Your task to perform on an android device: install app "Facebook" Image 0: 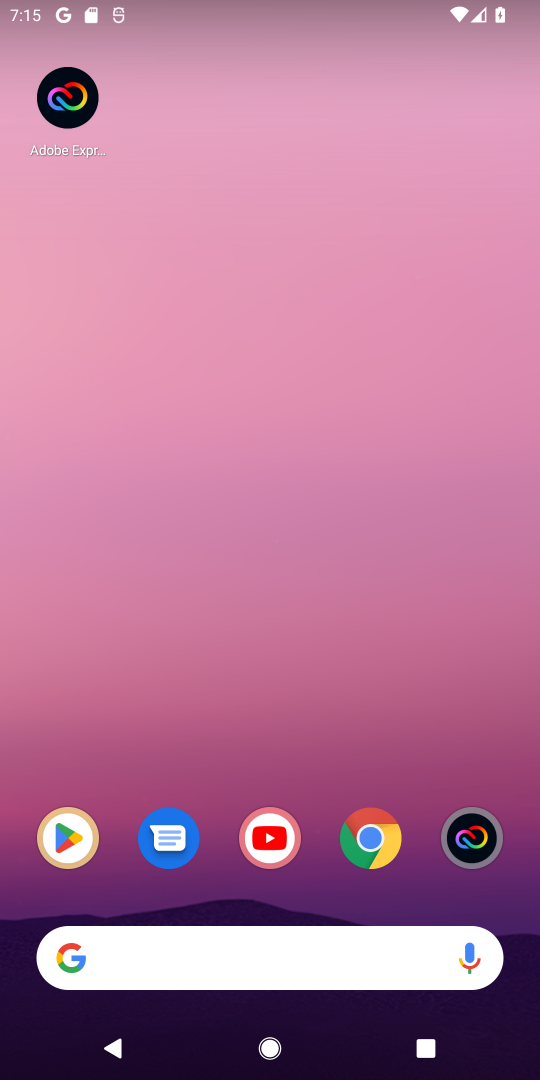
Step 0: click (278, 913)
Your task to perform on an android device: install app "Facebook" Image 1: 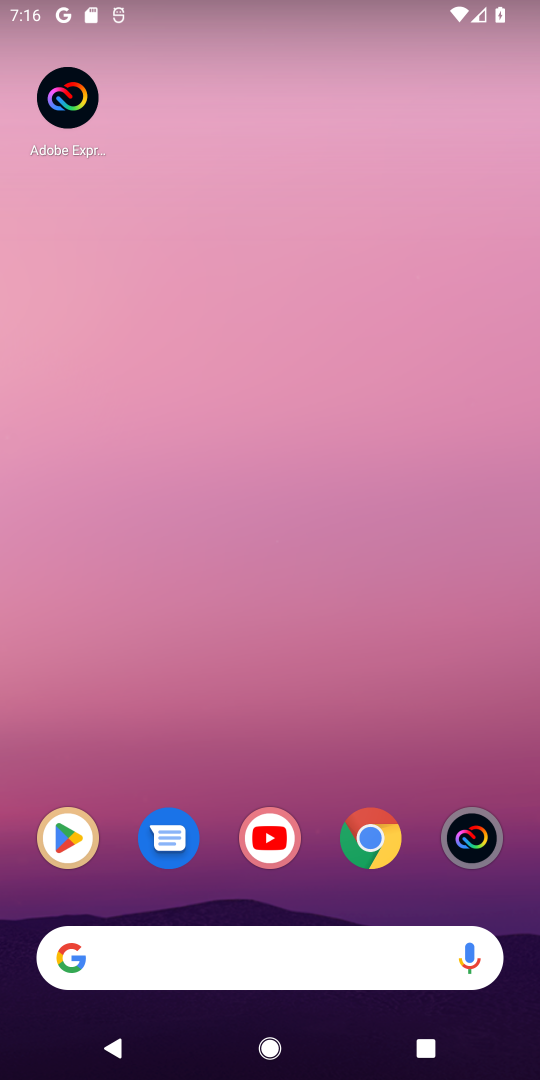
Step 1: drag from (302, 893) to (251, 19)
Your task to perform on an android device: install app "Facebook" Image 2: 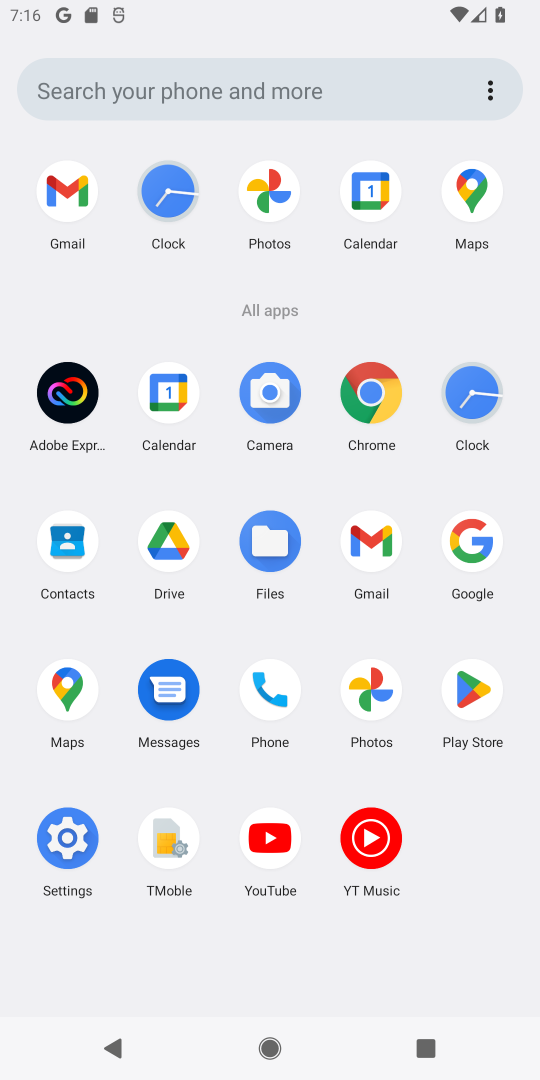
Step 2: click (479, 703)
Your task to perform on an android device: install app "Facebook" Image 3: 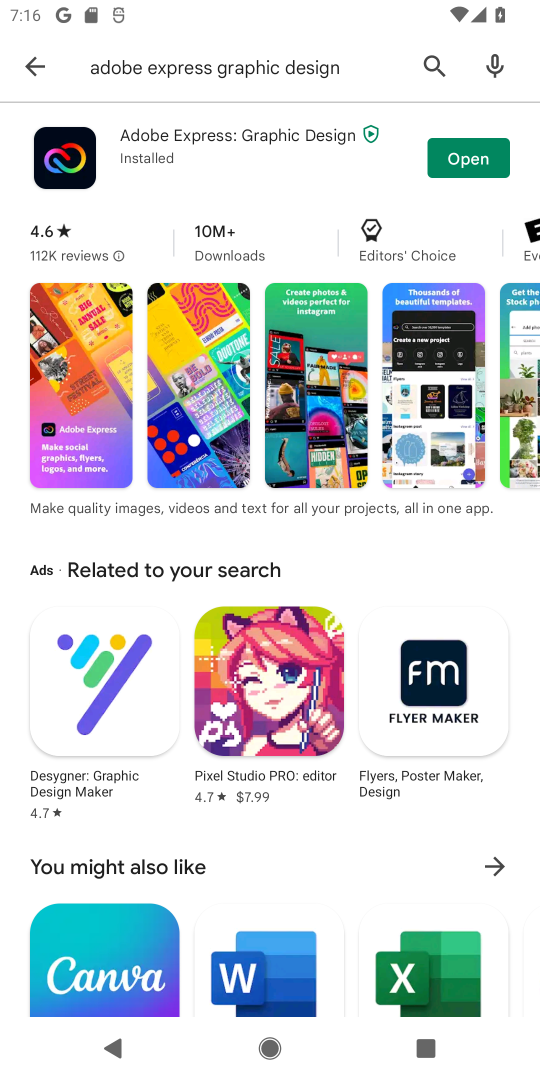
Step 3: click (31, 64)
Your task to perform on an android device: install app "Facebook" Image 4: 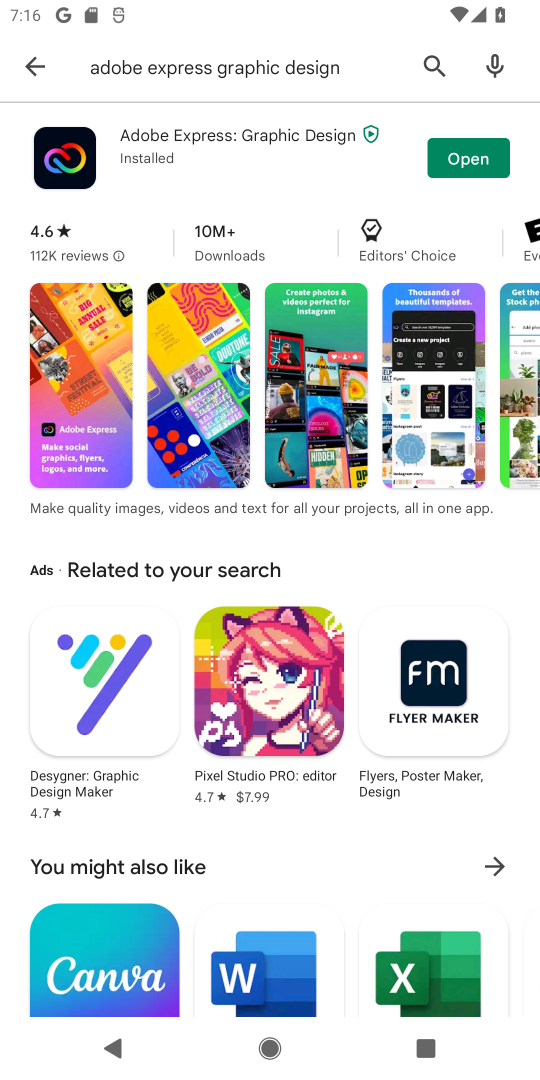
Step 4: click (430, 63)
Your task to perform on an android device: install app "Facebook" Image 5: 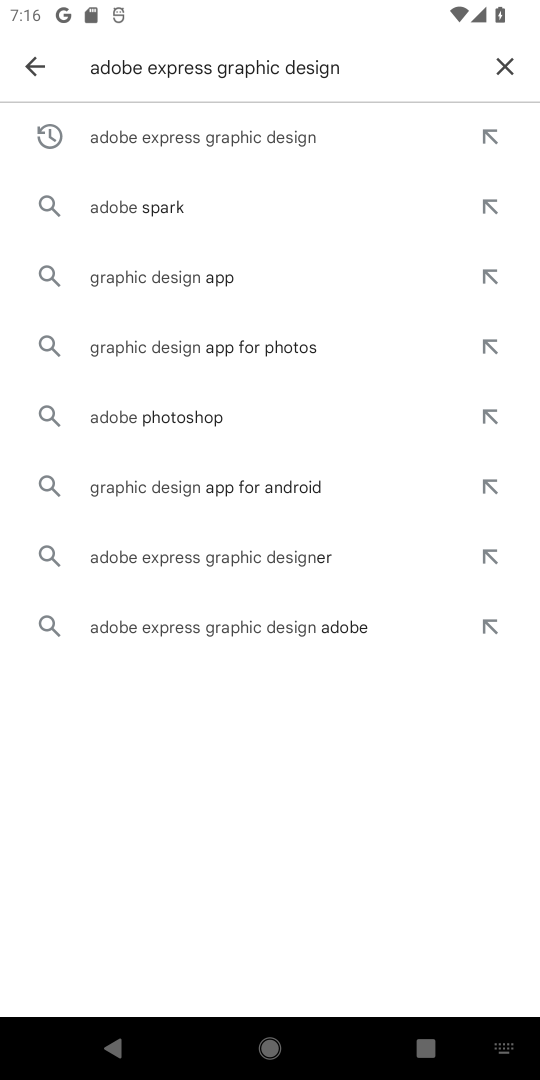
Step 5: click (512, 51)
Your task to perform on an android device: install app "Facebook" Image 6: 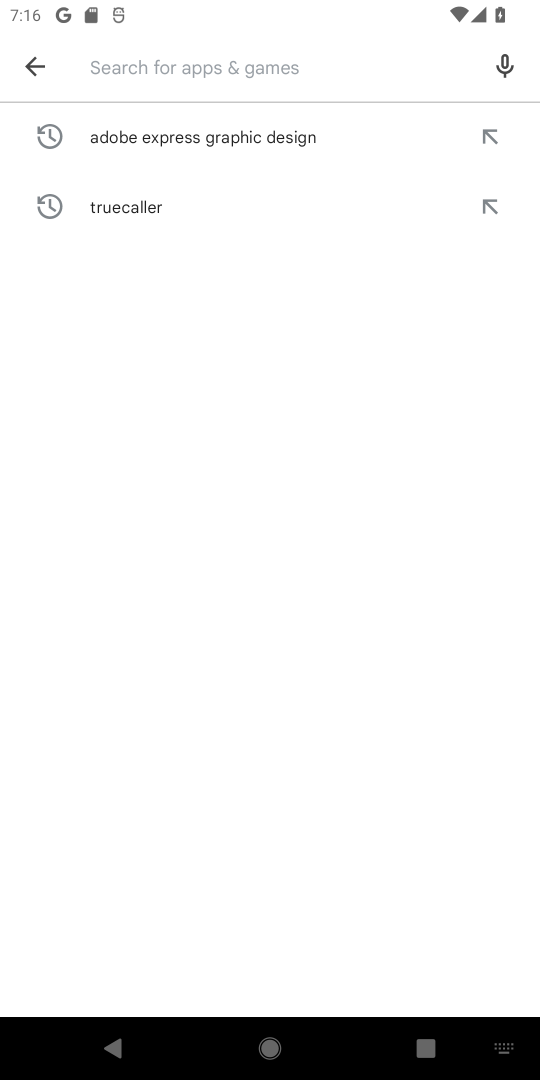
Step 6: type "Facebook"
Your task to perform on an android device: install app "Facebook" Image 7: 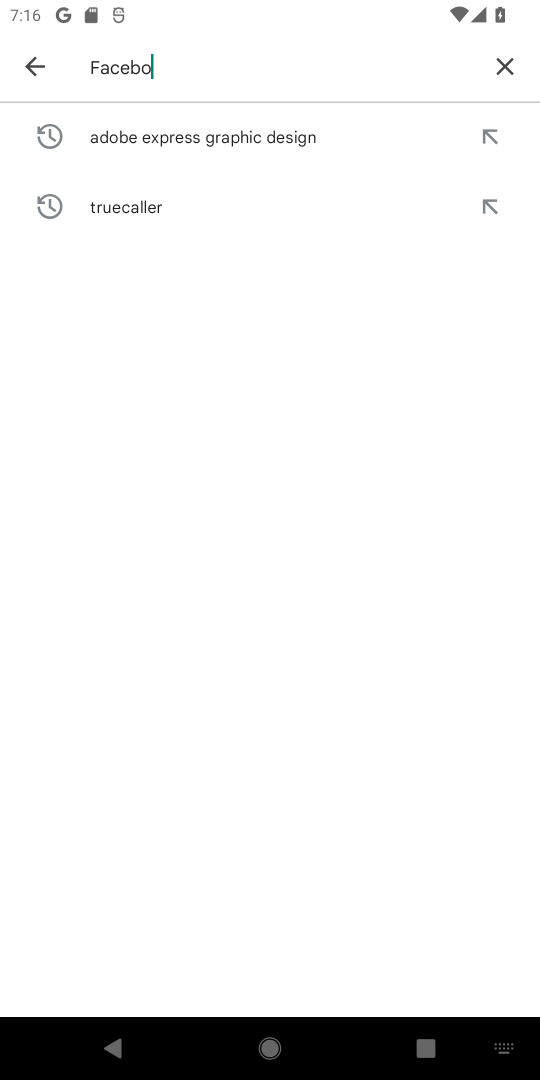
Step 7: type ""
Your task to perform on an android device: install app "Facebook" Image 8: 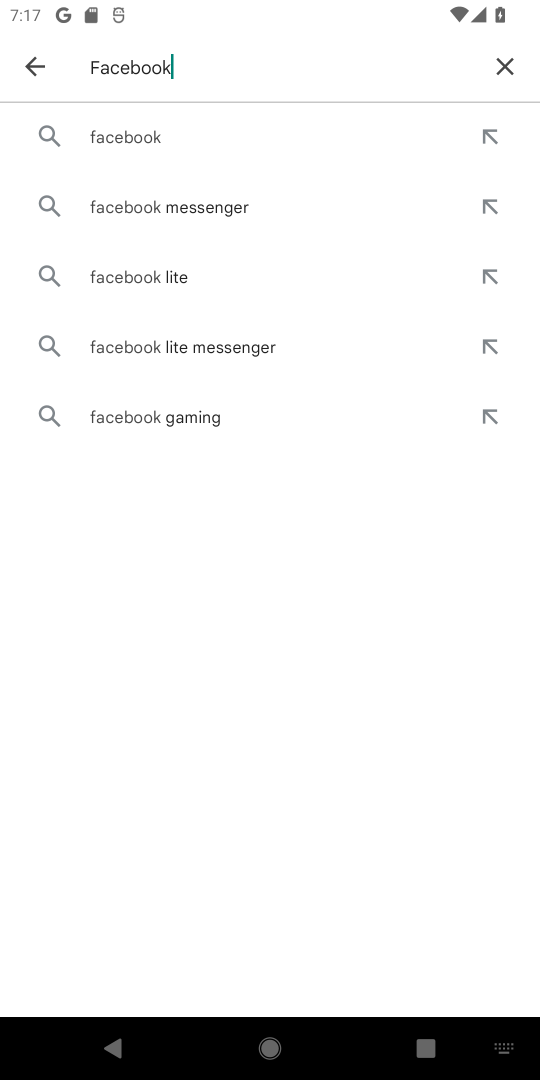
Step 8: click (166, 137)
Your task to perform on an android device: install app "Facebook" Image 9: 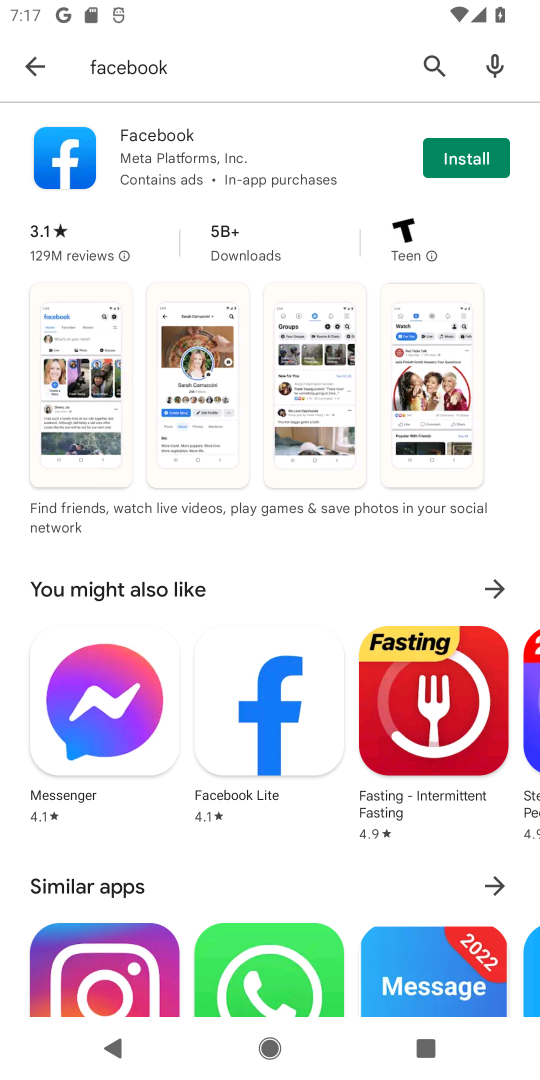
Step 9: click (479, 165)
Your task to perform on an android device: install app "Facebook" Image 10: 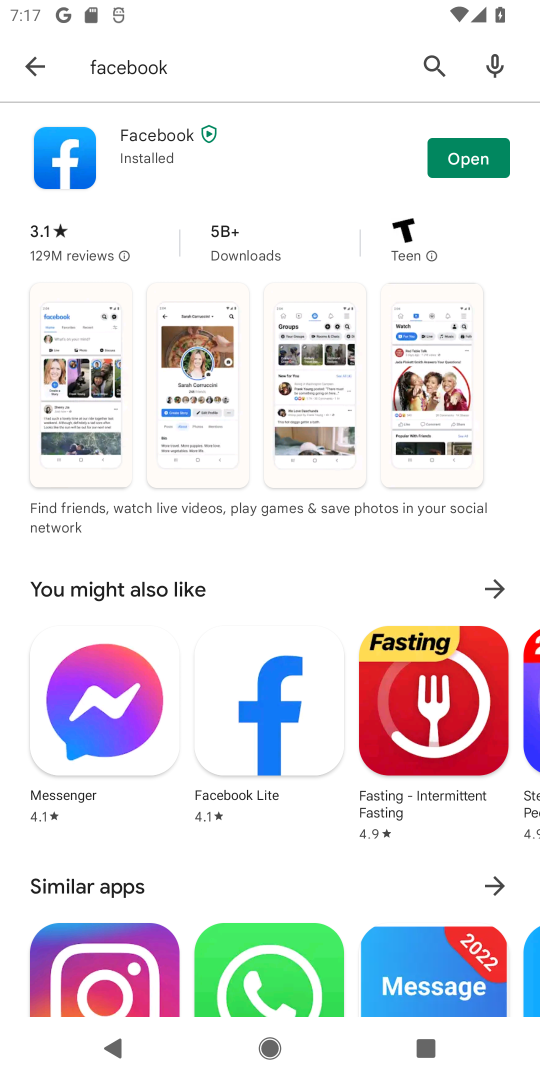
Step 10: click (330, 157)
Your task to perform on an android device: install app "Facebook" Image 11: 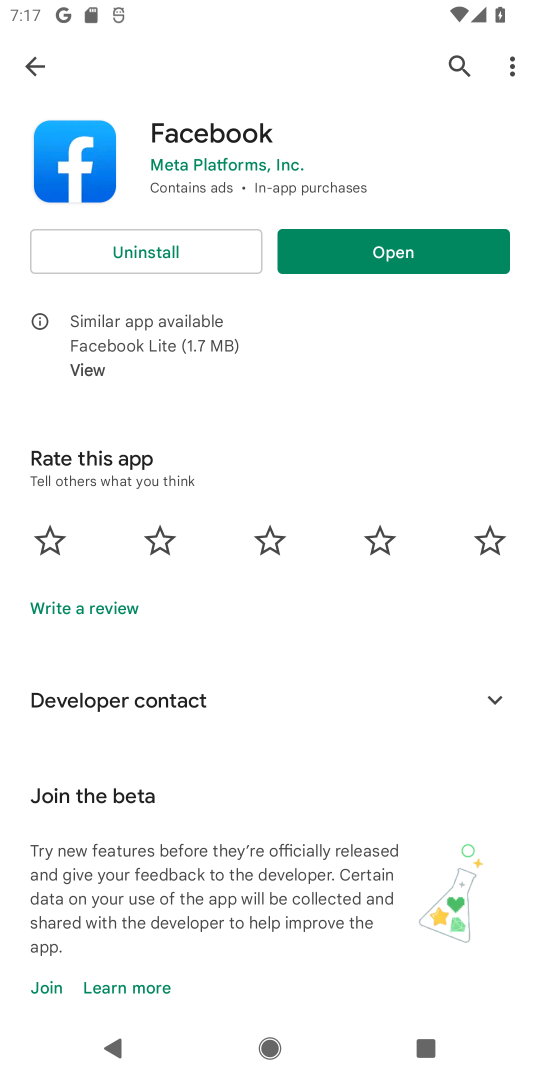
Step 11: task complete